Your task to perform on an android device: delete the emails in spam in the gmail app Image 0: 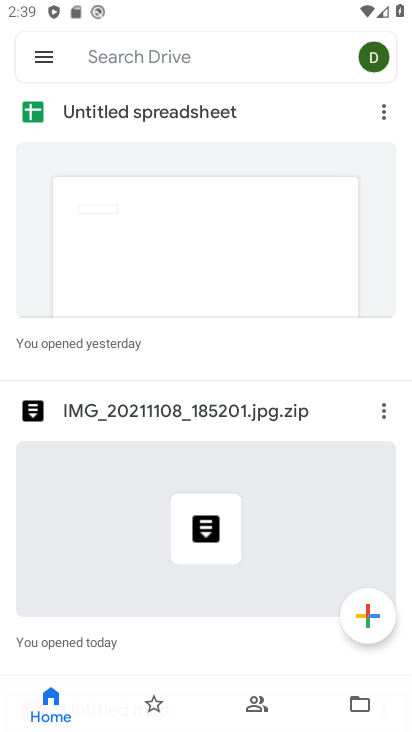
Step 0: press home button
Your task to perform on an android device: delete the emails in spam in the gmail app Image 1: 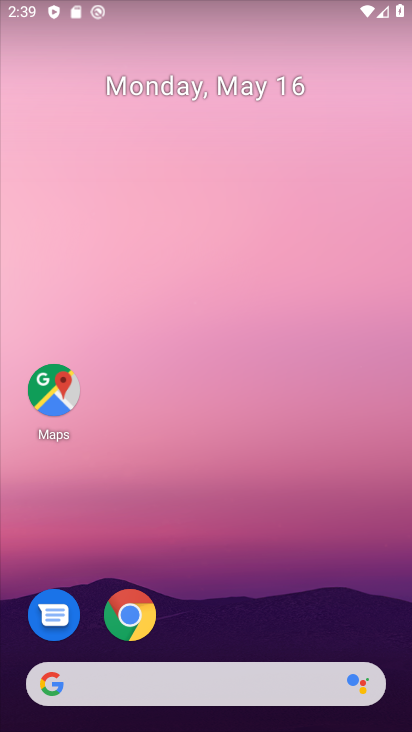
Step 1: drag from (344, 637) to (323, 1)
Your task to perform on an android device: delete the emails in spam in the gmail app Image 2: 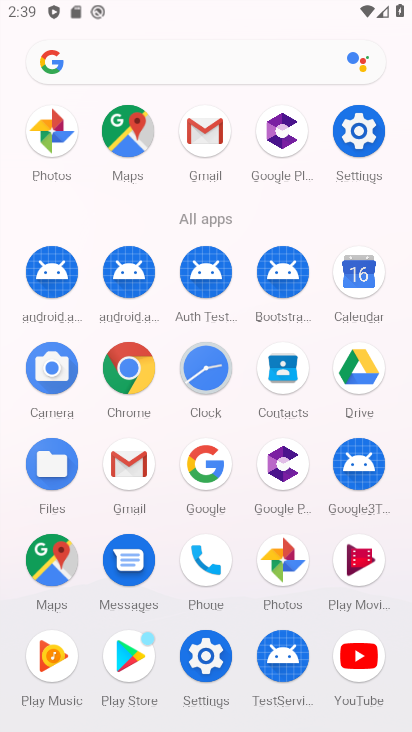
Step 2: click (208, 149)
Your task to perform on an android device: delete the emails in spam in the gmail app Image 3: 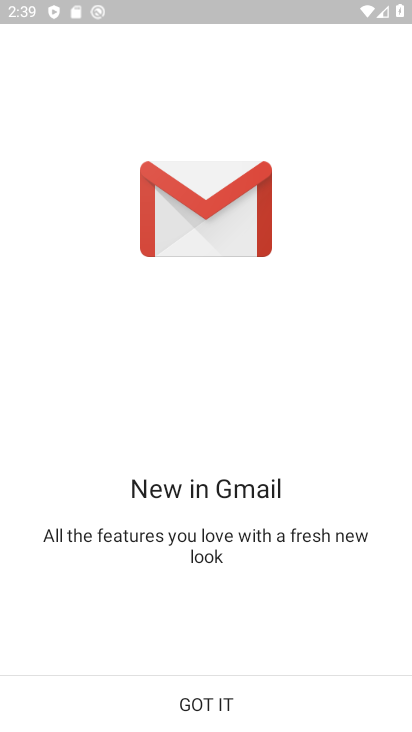
Step 3: click (196, 712)
Your task to perform on an android device: delete the emails in spam in the gmail app Image 4: 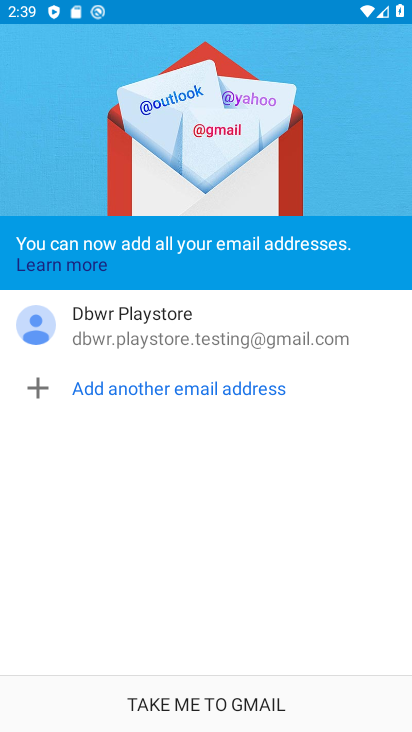
Step 4: click (196, 710)
Your task to perform on an android device: delete the emails in spam in the gmail app Image 5: 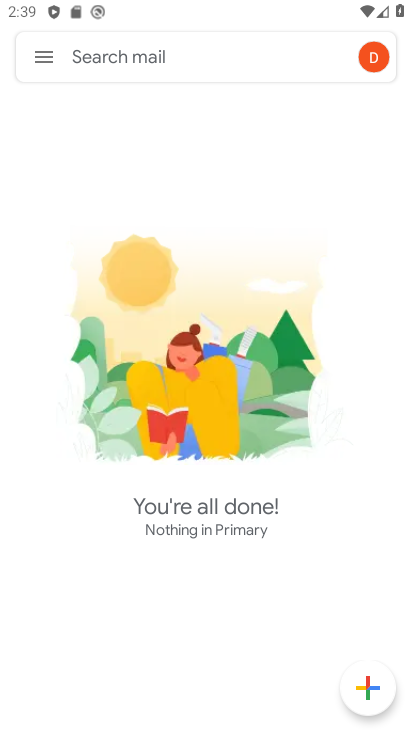
Step 5: click (48, 56)
Your task to perform on an android device: delete the emails in spam in the gmail app Image 6: 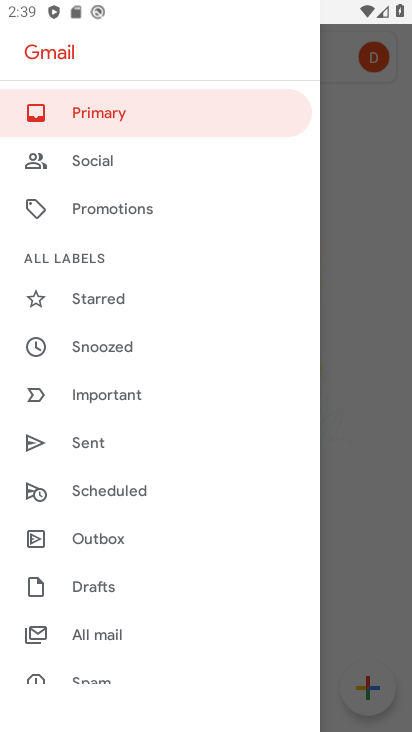
Step 6: drag from (157, 538) to (134, 246)
Your task to perform on an android device: delete the emails in spam in the gmail app Image 7: 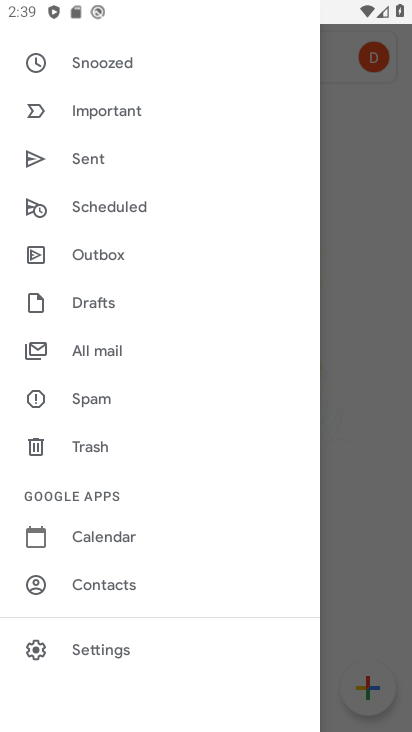
Step 7: click (91, 402)
Your task to perform on an android device: delete the emails in spam in the gmail app Image 8: 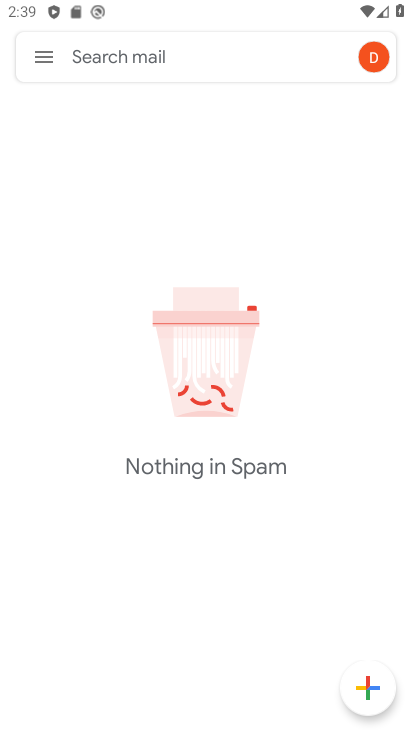
Step 8: task complete